Your task to perform on an android device: change your default location settings in chrome Image 0: 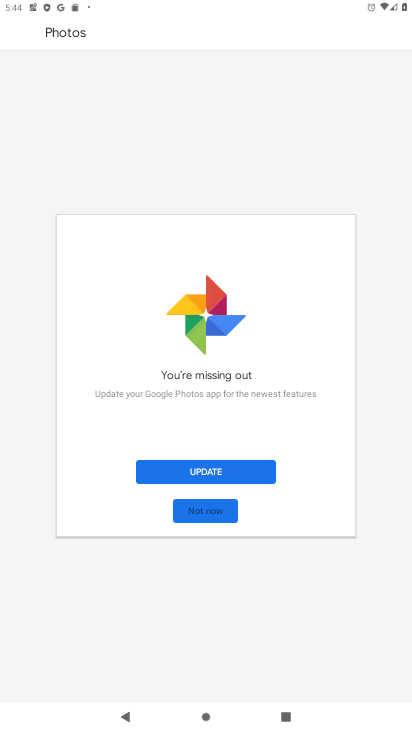
Step 0: press home button
Your task to perform on an android device: change your default location settings in chrome Image 1: 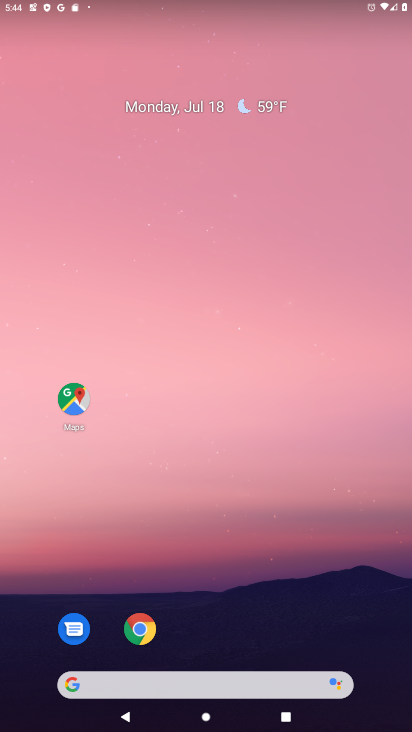
Step 1: drag from (250, 594) to (204, 124)
Your task to perform on an android device: change your default location settings in chrome Image 2: 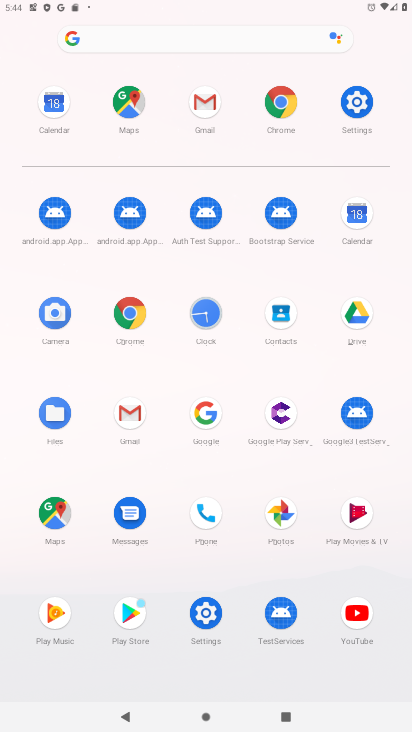
Step 2: click (129, 312)
Your task to perform on an android device: change your default location settings in chrome Image 3: 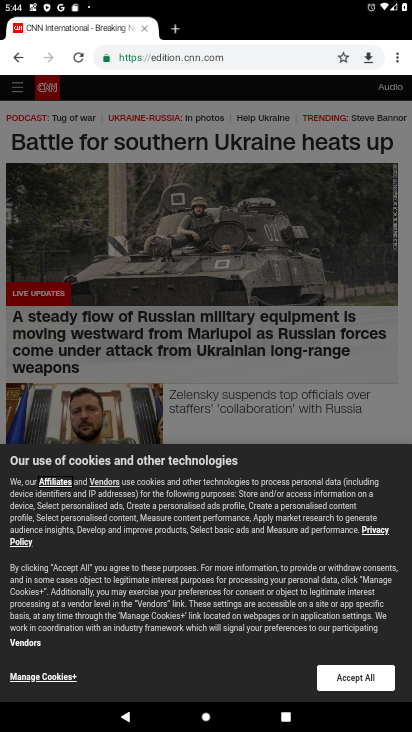
Step 3: drag from (401, 53) to (276, 344)
Your task to perform on an android device: change your default location settings in chrome Image 4: 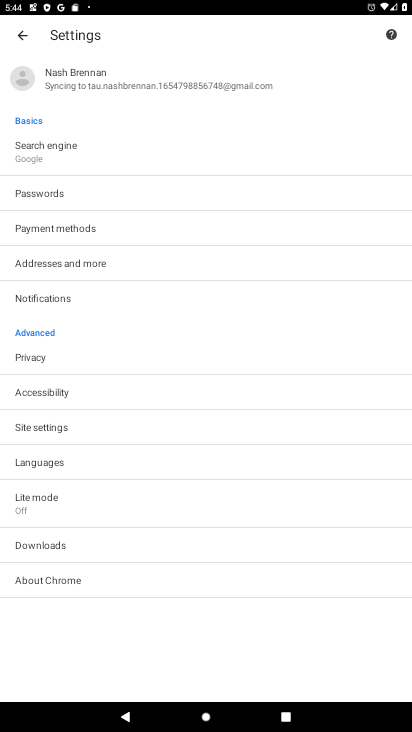
Step 4: click (46, 428)
Your task to perform on an android device: change your default location settings in chrome Image 5: 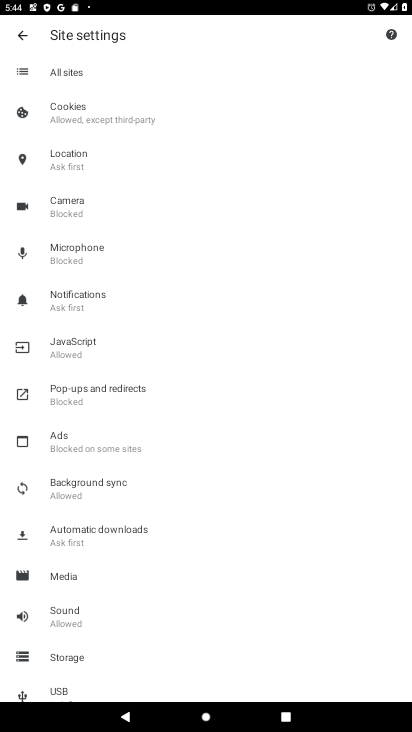
Step 5: click (80, 155)
Your task to perform on an android device: change your default location settings in chrome Image 6: 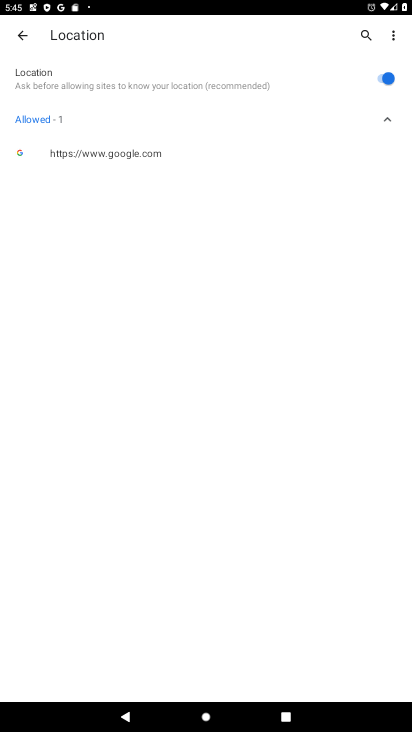
Step 6: click (391, 71)
Your task to perform on an android device: change your default location settings in chrome Image 7: 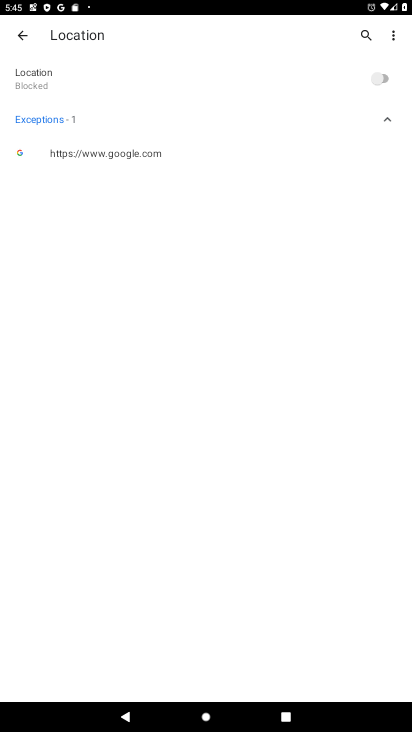
Step 7: task complete